Your task to perform on an android device: Check the weather Image 0: 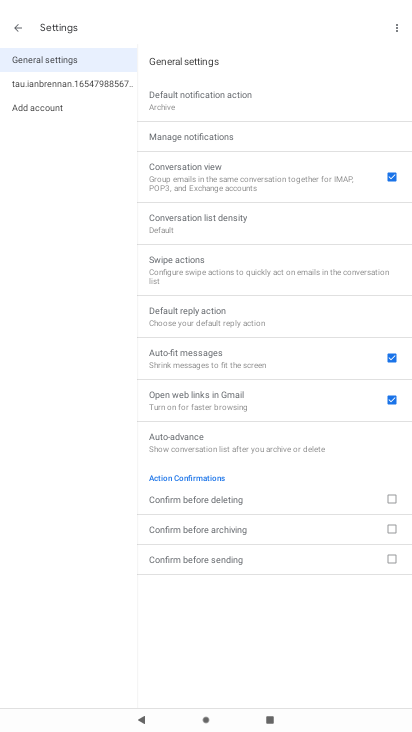
Step 0: press home button
Your task to perform on an android device: Check the weather Image 1: 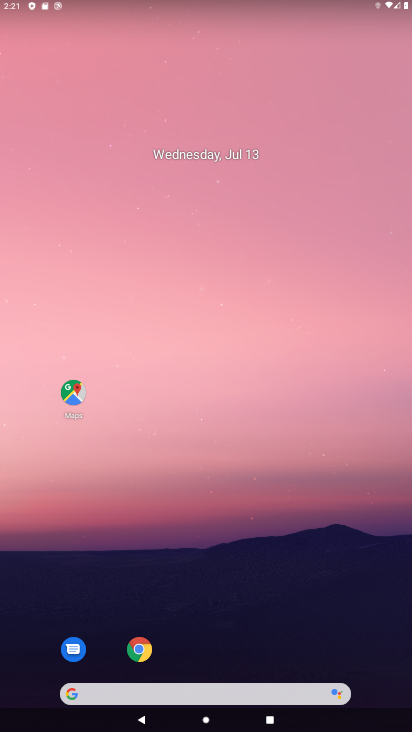
Step 1: click (200, 695)
Your task to perform on an android device: Check the weather Image 2: 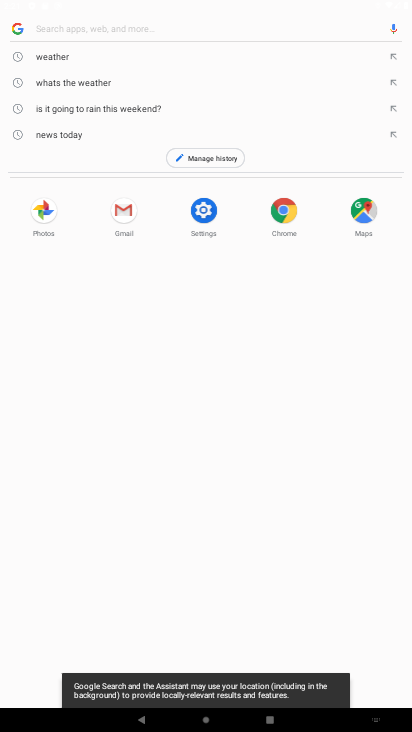
Step 2: click (65, 54)
Your task to perform on an android device: Check the weather Image 3: 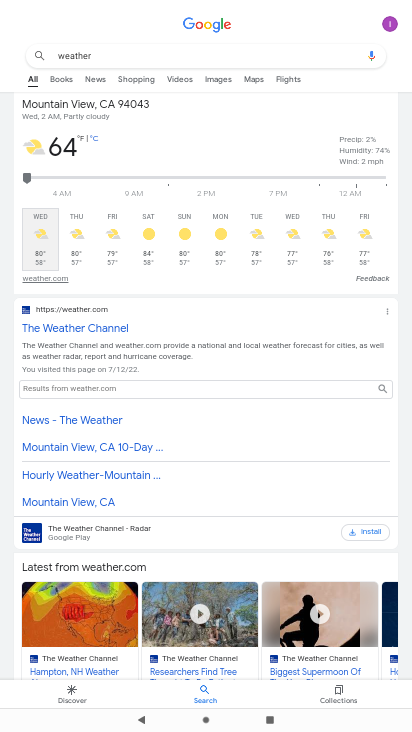
Step 3: task complete